Your task to perform on an android device: toggle notifications settings in the gmail app Image 0: 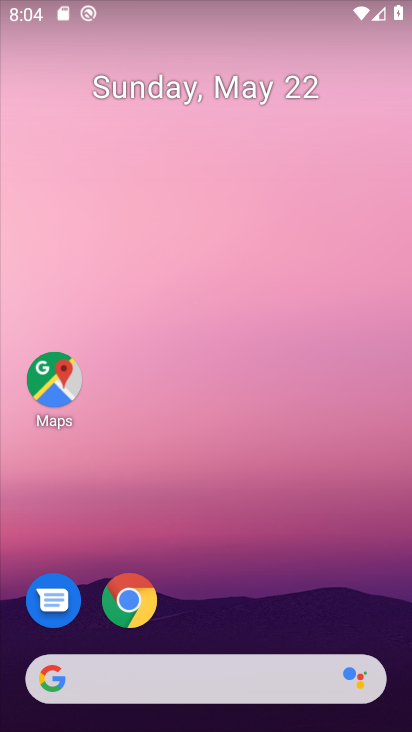
Step 0: drag from (215, 656) to (288, 269)
Your task to perform on an android device: toggle notifications settings in the gmail app Image 1: 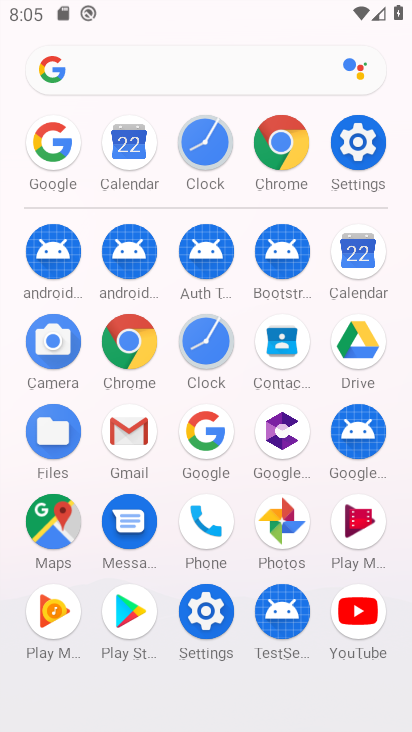
Step 1: click (116, 446)
Your task to perform on an android device: toggle notifications settings in the gmail app Image 2: 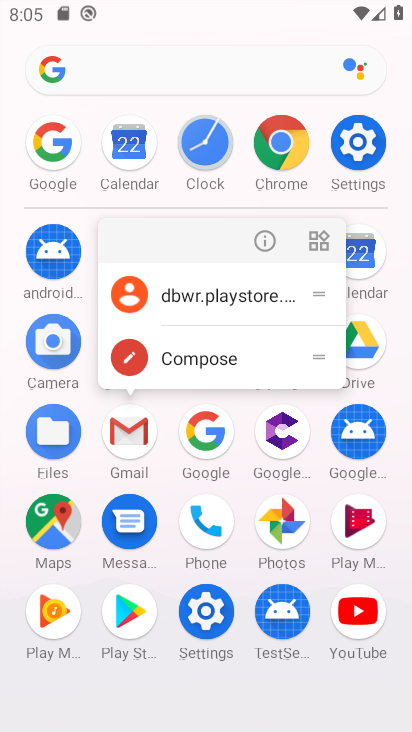
Step 2: click (124, 434)
Your task to perform on an android device: toggle notifications settings in the gmail app Image 3: 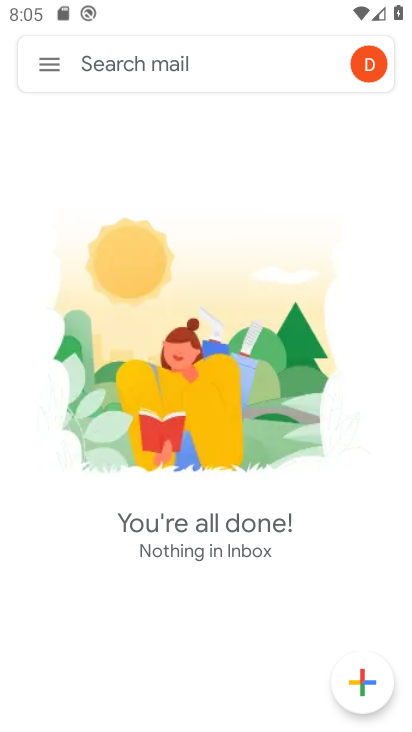
Step 3: click (42, 64)
Your task to perform on an android device: toggle notifications settings in the gmail app Image 4: 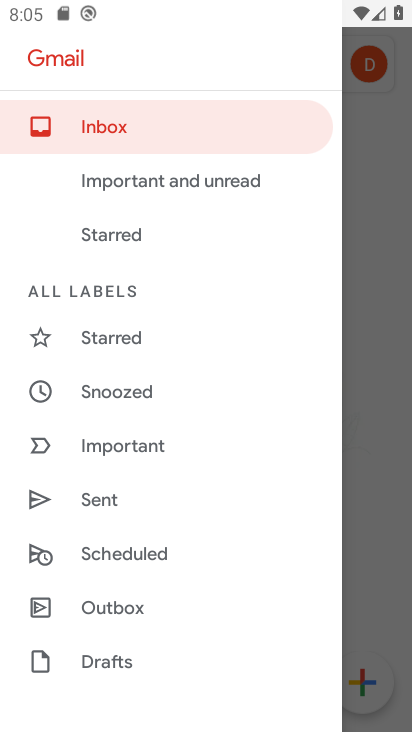
Step 4: drag from (107, 674) to (164, 325)
Your task to perform on an android device: toggle notifications settings in the gmail app Image 5: 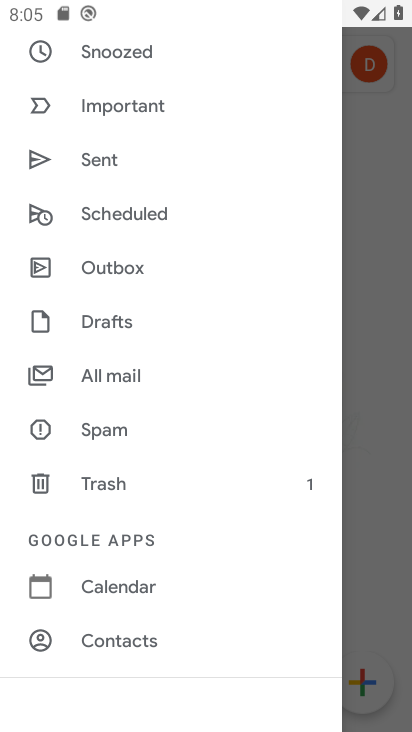
Step 5: drag from (155, 659) to (224, 372)
Your task to perform on an android device: toggle notifications settings in the gmail app Image 6: 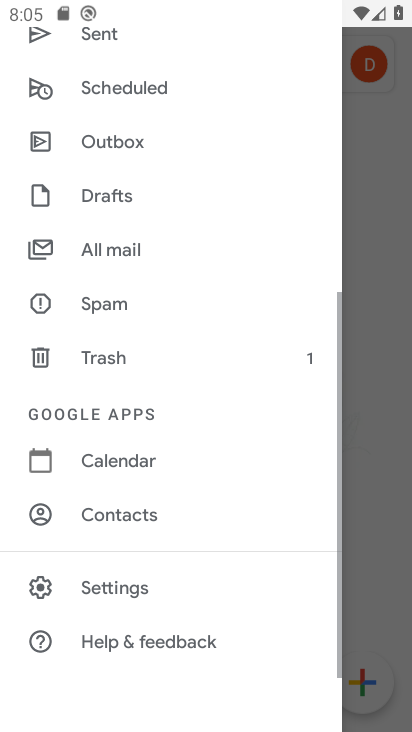
Step 6: click (140, 590)
Your task to perform on an android device: toggle notifications settings in the gmail app Image 7: 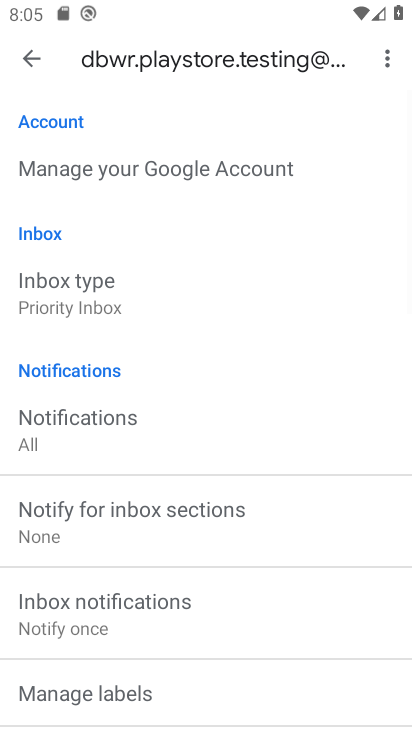
Step 7: drag from (117, 715) to (134, 394)
Your task to perform on an android device: toggle notifications settings in the gmail app Image 8: 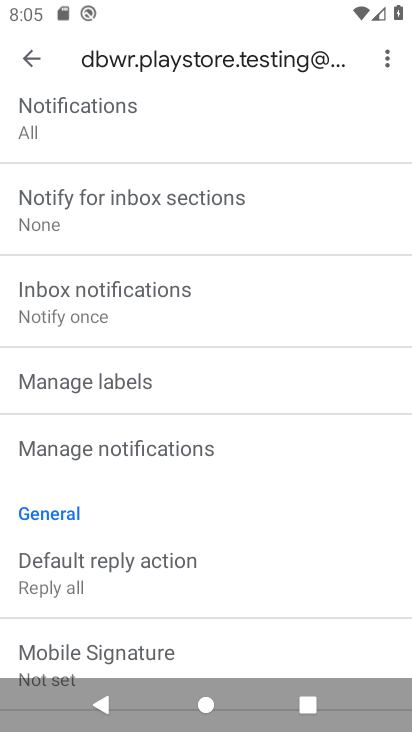
Step 8: drag from (107, 649) to (132, 396)
Your task to perform on an android device: toggle notifications settings in the gmail app Image 9: 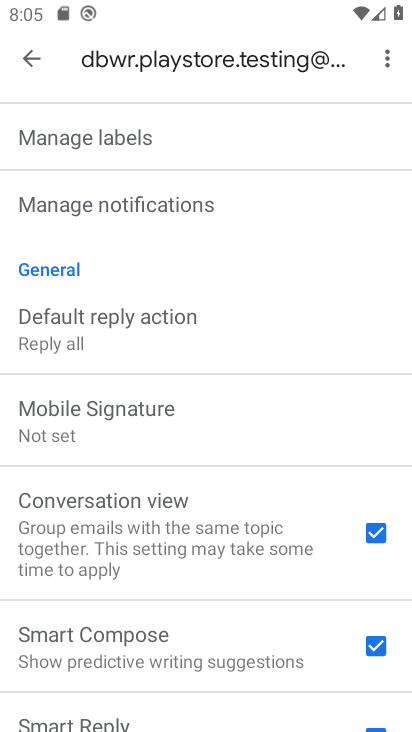
Step 9: drag from (150, 124) to (122, 537)
Your task to perform on an android device: toggle notifications settings in the gmail app Image 10: 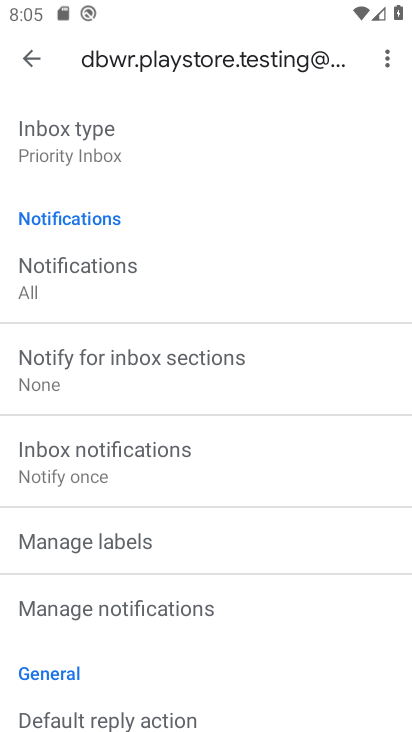
Step 10: click (100, 609)
Your task to perform on an android device: toggle notifications settings in the gmail app Image 11: 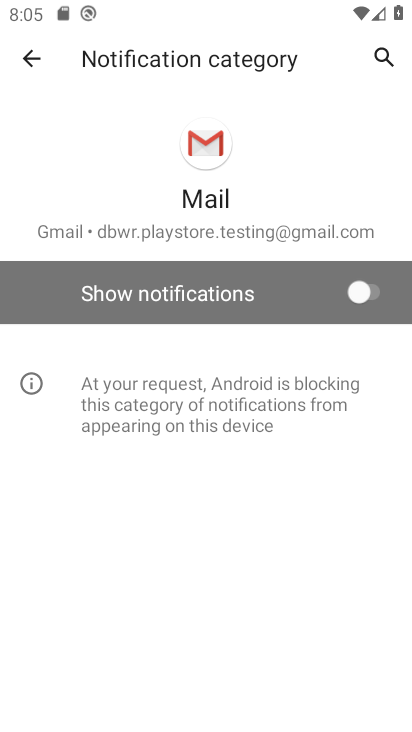
Step 11: click (368, 291)
Your task to perform on an android device: toggle notifications settings in the gmail app Image 12: 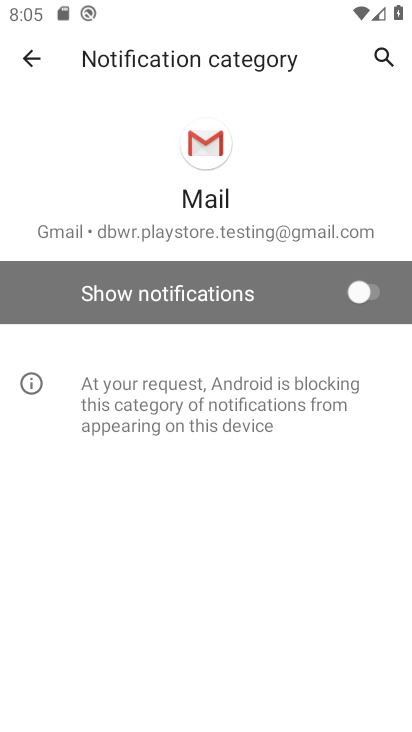
Step 12: click (363, 293)
Your task to perform on an android device: toggle notifications settings in the gmail app Image 13: 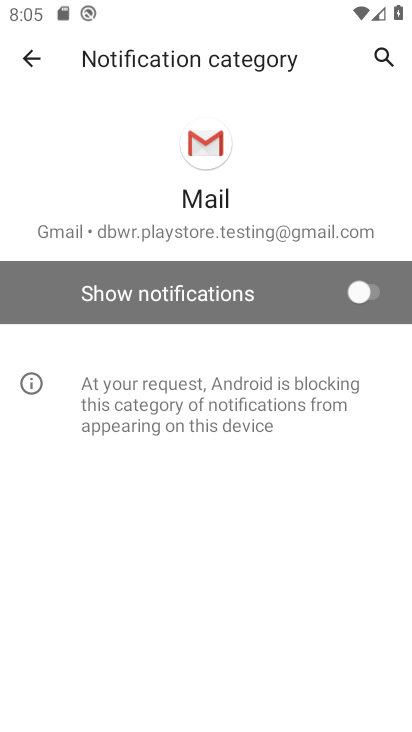
Step 13: click (382, 290)
Your task to perform on an android device: toggle notifications settings in the gmail app Image 14: 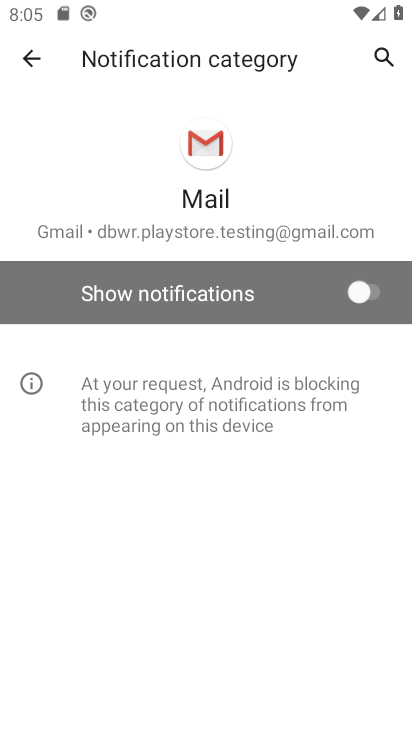
Step 14: click (377, 295)
Your task to perform on an android device: toggle notifications settings in the gmail app Image 15: 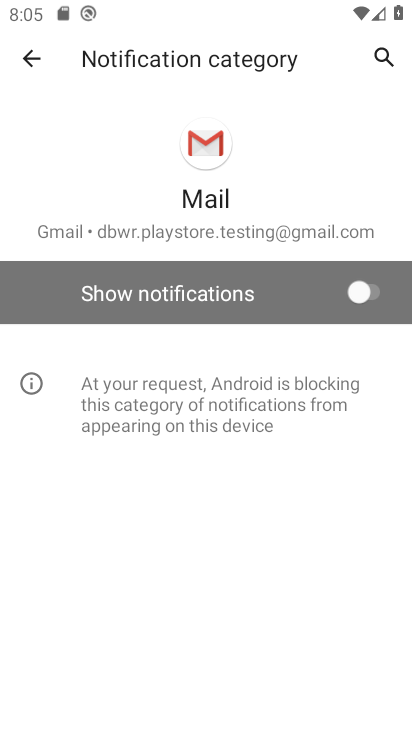
Step 15: click (27, 51)
Your task to perform on an android device: toggle notifications settings in the gmail app Image 16: 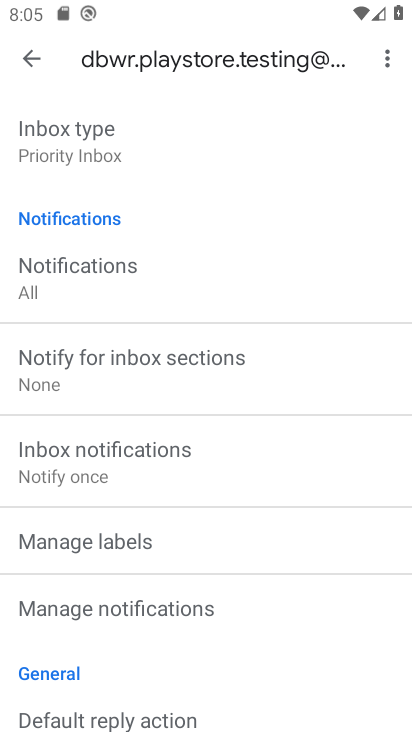
Step 16: click (20, 53)
Your task to perform on an android device: toggle notifications settings in the gmail app Image 17: 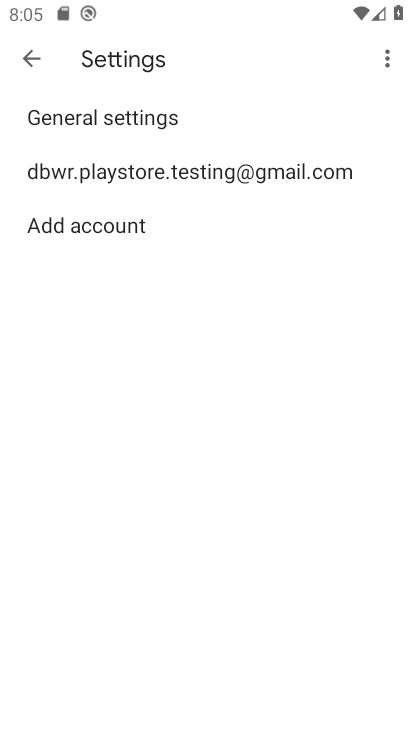
Step 17: click (102, 116)
Your task to perform on an android device: toggle notifications settings in the gmail app Image 18: 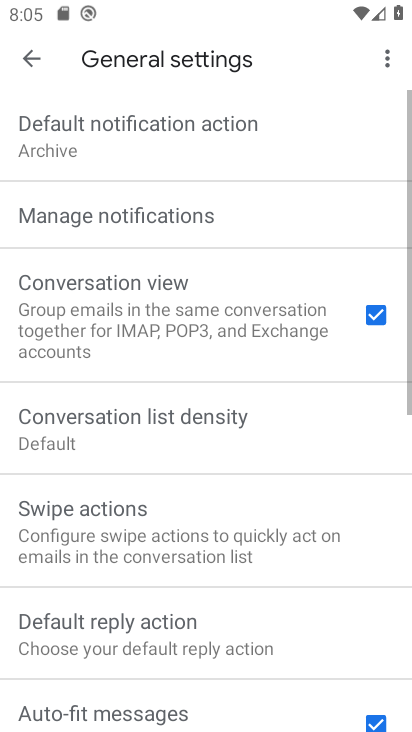
Step 18: click (112, 215)
Your task to perform on an android device: toggle notifications settings in the gmail app Image 19: 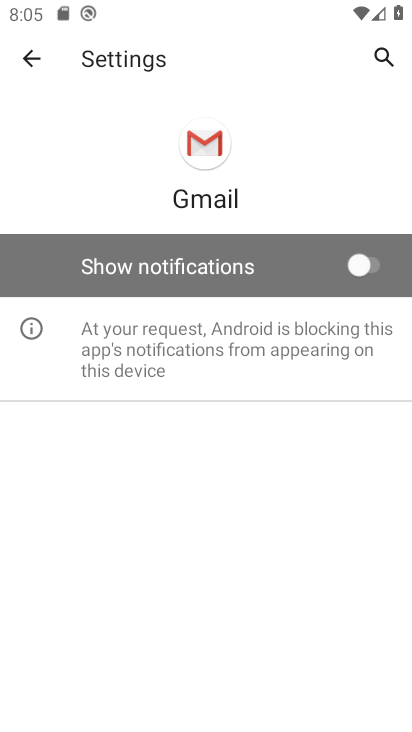
Step 19: click (375, 268)
Your task to perform on an android device: toggle notifications settings in the gmail app Image 20: 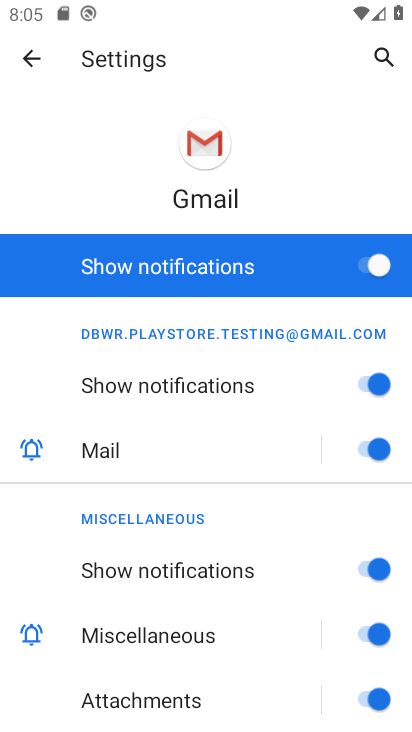
Step 20: task complete